Your task to perform on an android device: Add "razer nari" to the cart on target.com, then select checkout. Image 0: 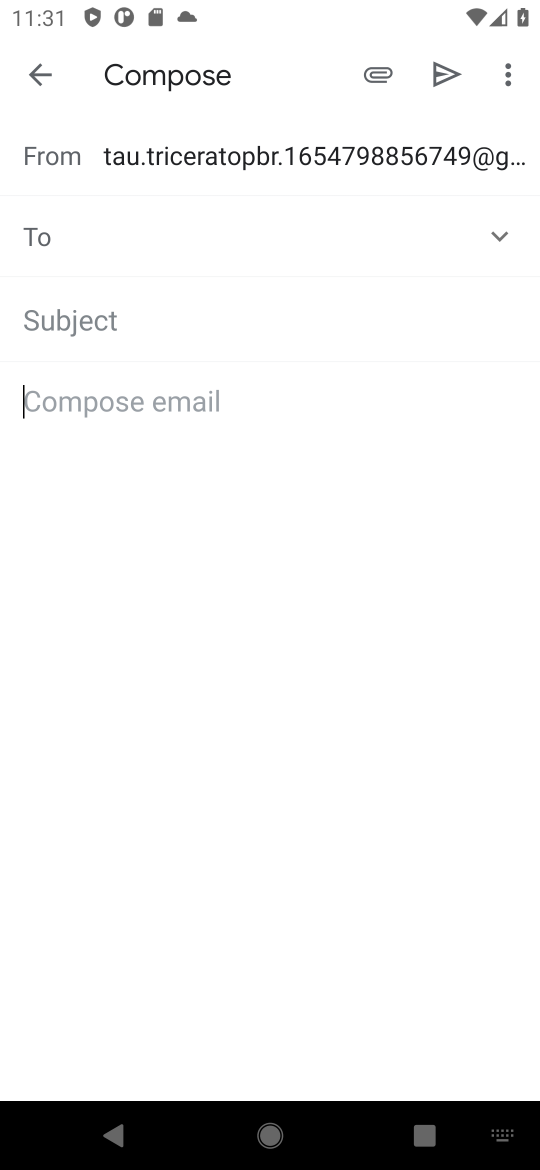
Step 0: press home button
Your task to perform on an android device: Add "razer nari" to the cart on target.com, then select checkout. Image 1: 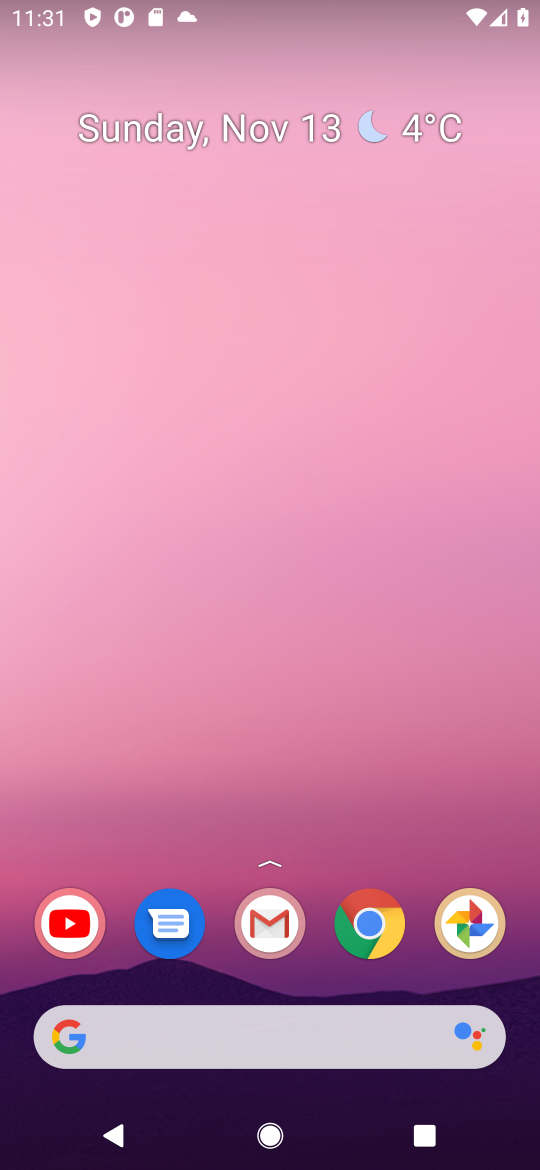
Step 1: click (485, 477)
Your task to perform on an android device: Add "razer nari" to the cart on target.com, then select checkout. Image 2: 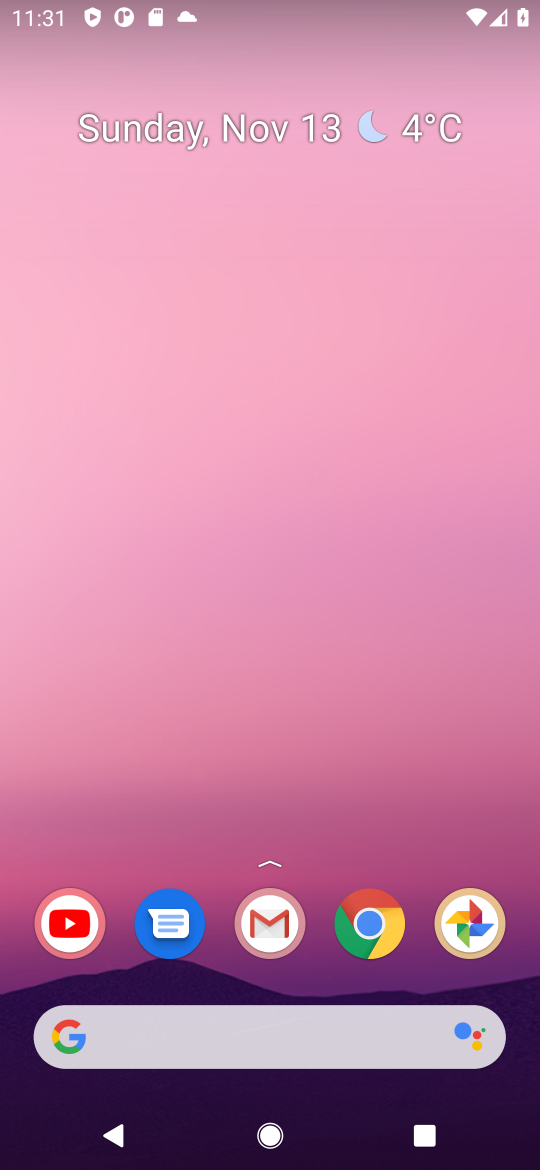
Step 2: click (370, 908)
Your task to perform on an android device: Add "razer nari" to the cart on target.com, then select checkout. Image 3: 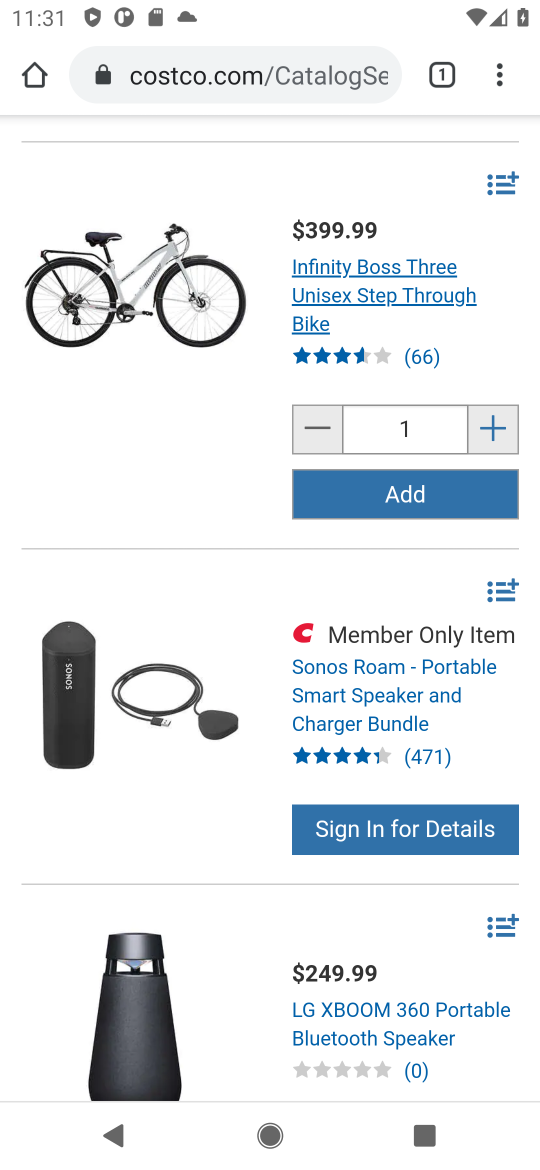
Step 3: click (332, 76)
Your task to perform on an android device: Add "razer nari" to the cart on target.com, then select checkout. Image 4: 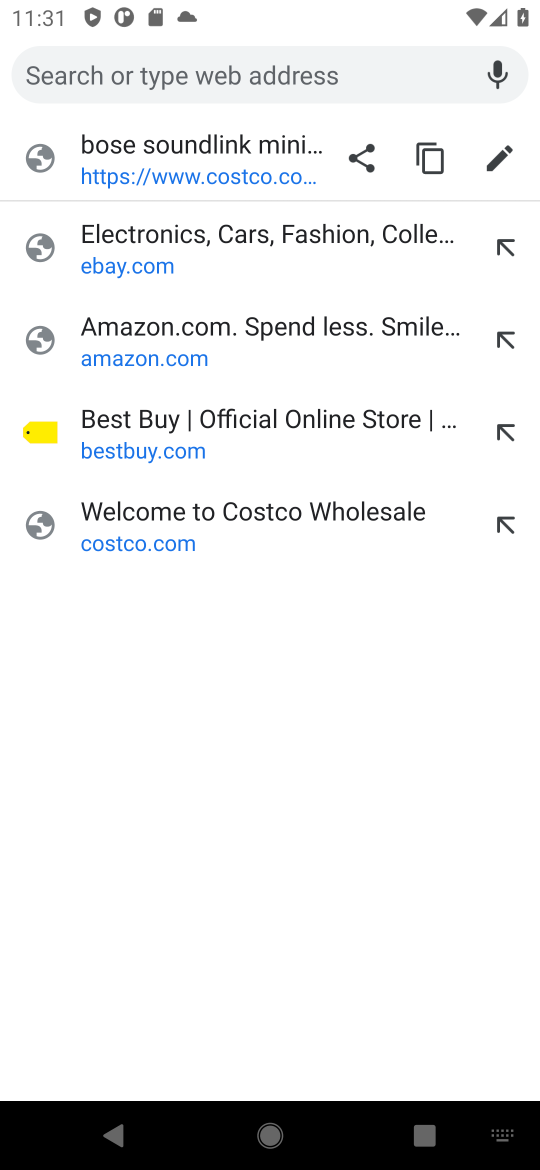
Step 4: type "target.com"
Your task to perform on an android device: Add "razer nari" to the cart on target.com, then select checkout. Image 5: 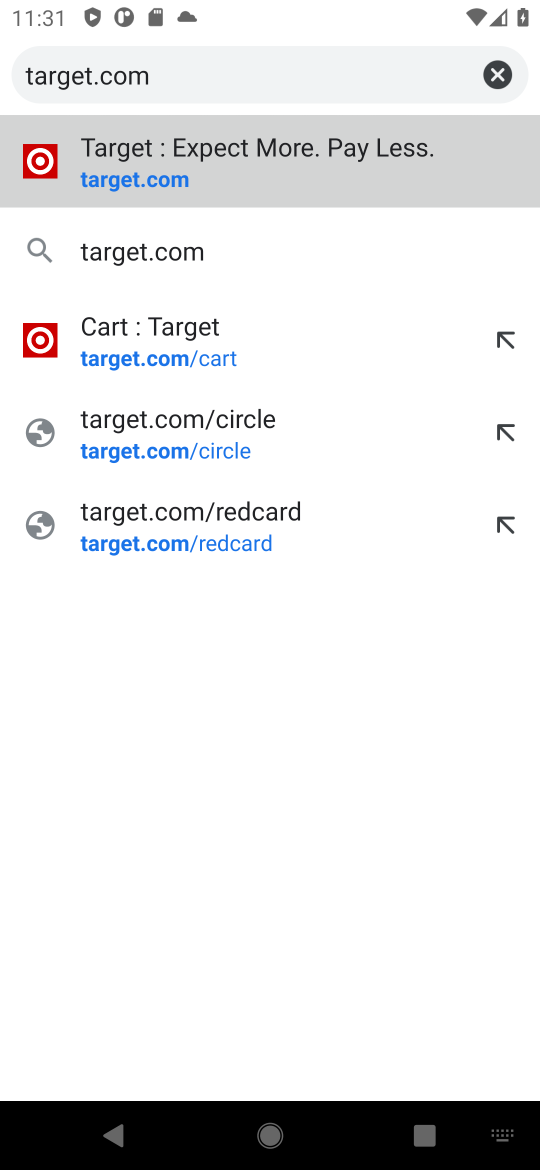
Step 5: press enter
Your task to perform on an android device: Add "razer nari" to the cart on target.com, then select checkout. Image 6: 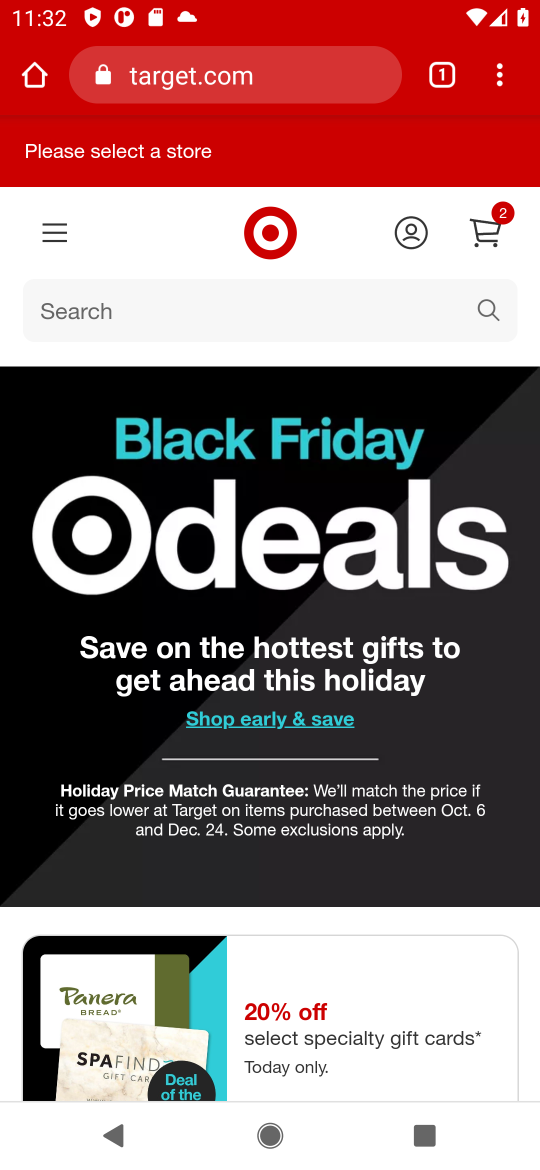
Step 6: click (491, 302)
Your task to perform on an android device: Add "razer nari" to the cart on target.com, then select checkout. Image 7: 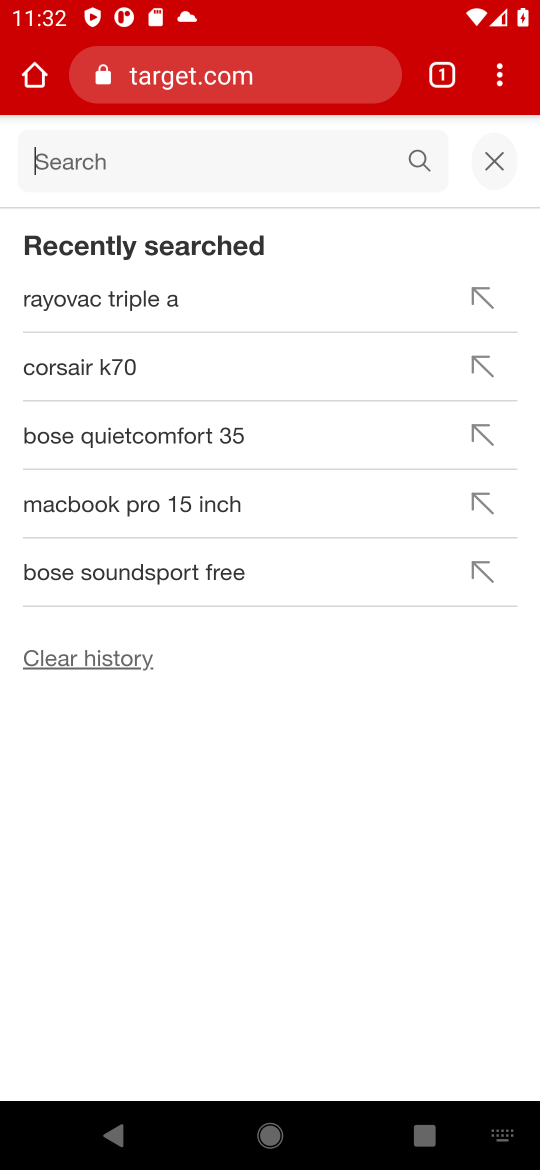
Step 7: type "razer nari"
Your task to perform on an android device: Add "razer nari" to the cart on target.com, then select checkout. Image 8: 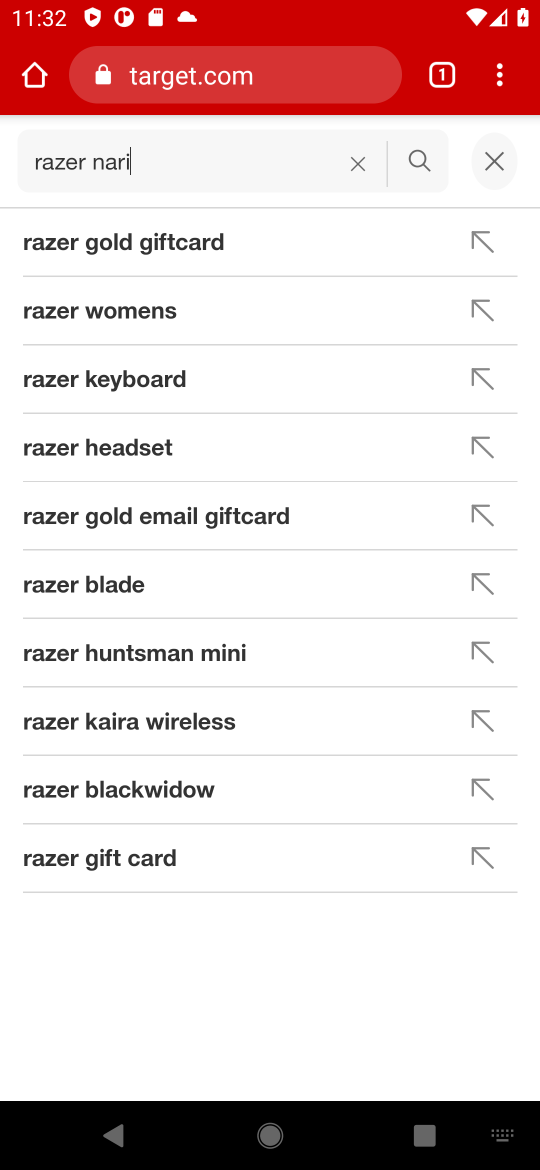
Step 8: press enter
Your task to perform on an android device: Add "razer nari" to the cart on target.com, then select checkout. Image 9: 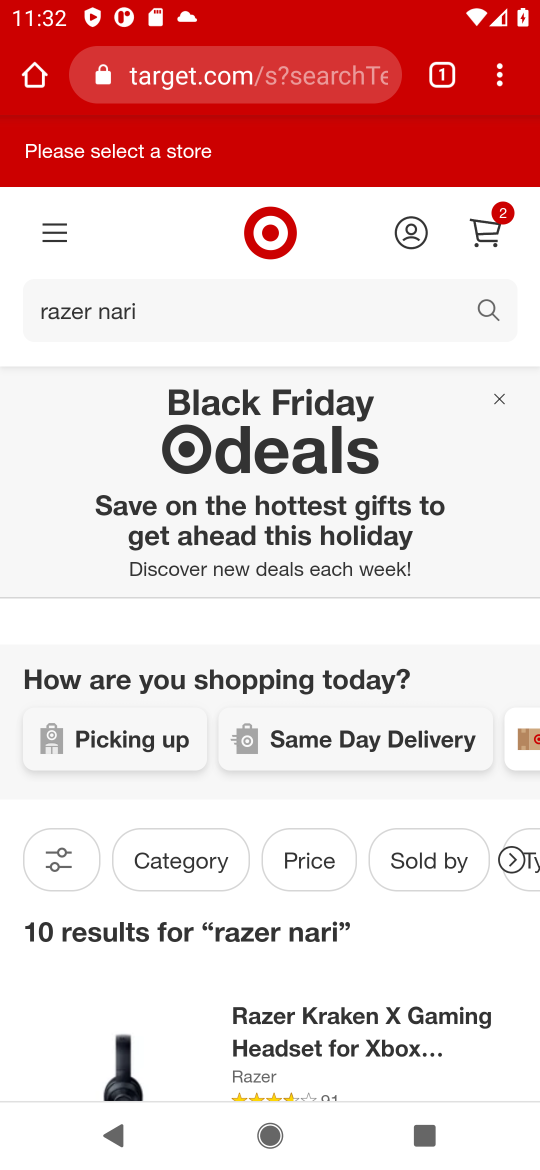
Step 9: task complete